Your task to perform on an android device: turn on showing notifications on the lock screen Image 0: 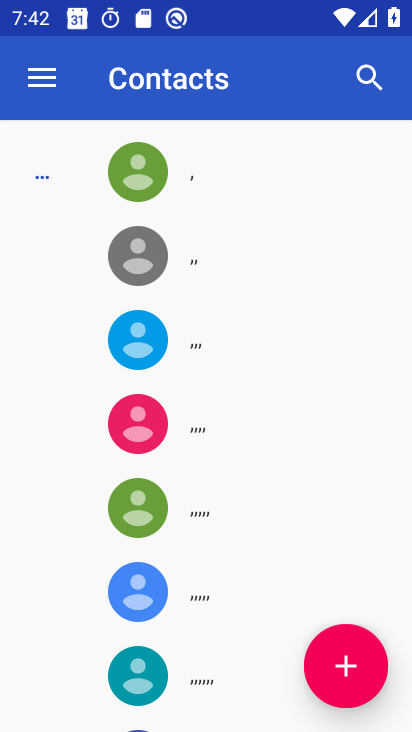
Step 0: press home button
Your task to perform on an android device: turn on showing notifications on the lock screen Image 1: 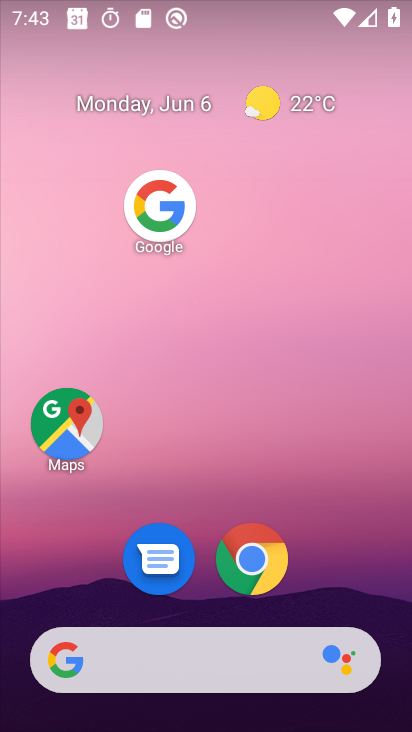
Step 1: drag from (199, 581) to (207, 298)
Your task to perform on an android device: turn on showing notifications on the lock screen Image 2: 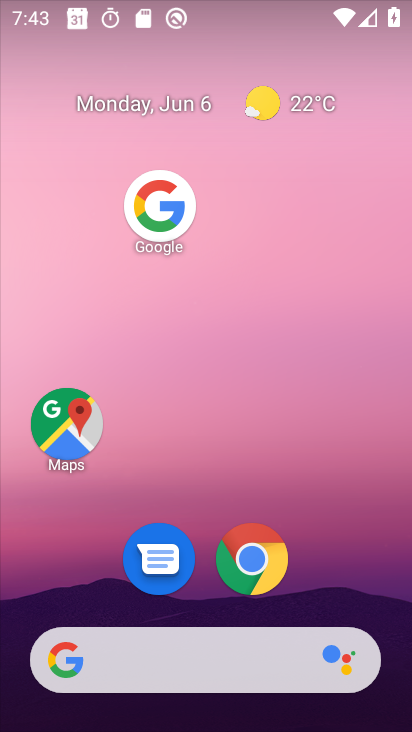
Step 2: drag from (198, 584) to (238, 122)
Your task to perform on an android device: turn on showing notifications on the lock screen Image 3: 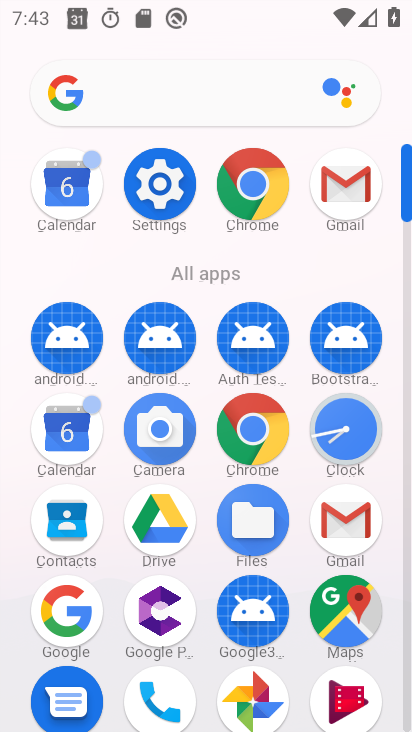
Step 3: click (160, 185)
Your task to perform on an android device: turn on showing notifications on the lock screen Image 4: 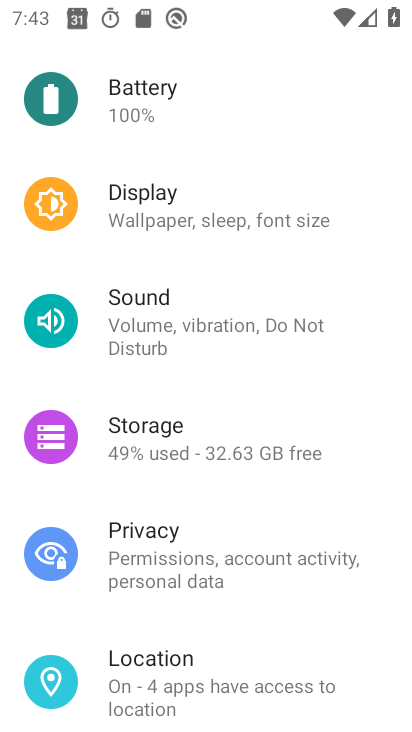
Step 4: drag from (221, 644) to (305, 214)
Your task to perform on an android device: turn on showing notifications on the lock screen Image 5: 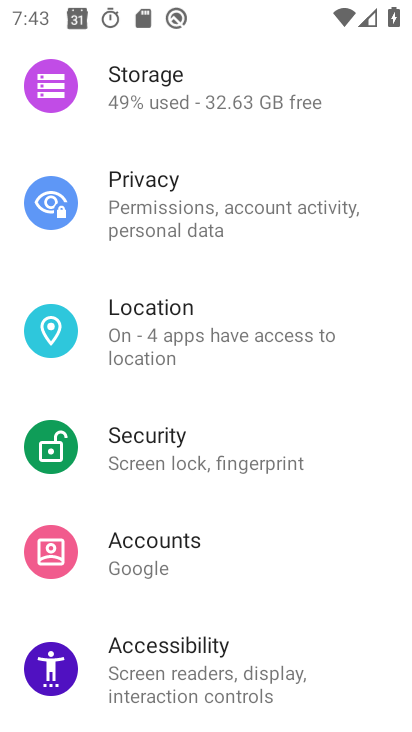
Step 5: drag from (179, 143) to (207, 694)
Your task to perform on an android device: turn on showing notifications on the lock screen Image 6: 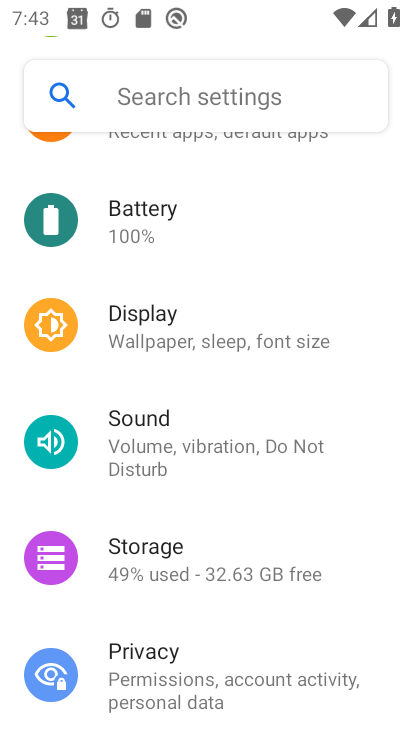
Step 6: drag from (196, 260) to (227, 684)
Your task to perform on an android device: turn on showing notifications on the lock screen Image 7: 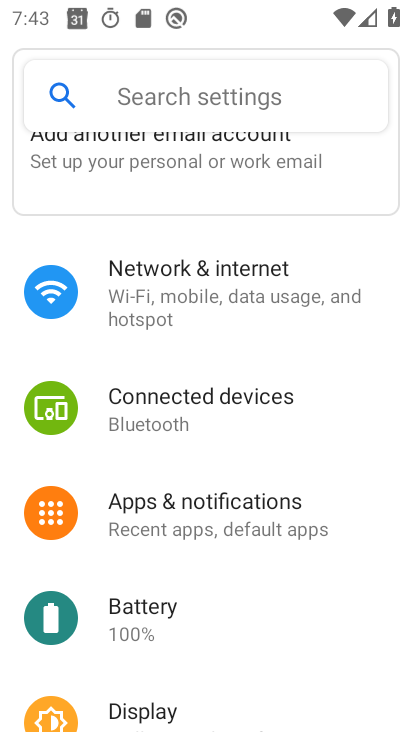
Step 7: click (197, 506)
Your task to perform on an android device: turn on showing notifications on the lock screen Image 8: 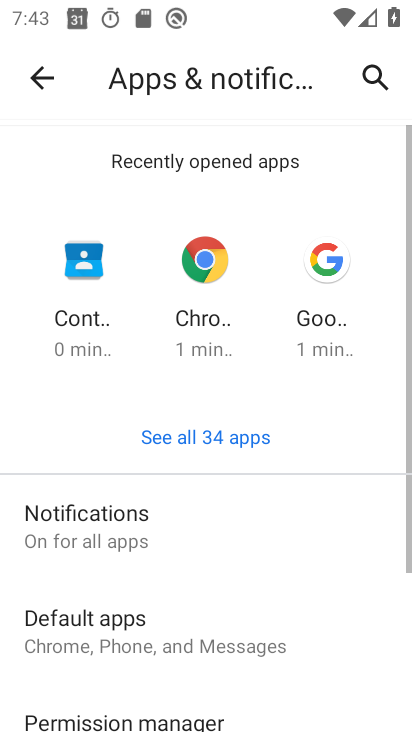
Step 8: click (109, 523)
Your task to perform on an android device: turn on showing notifications on the lock screen Image 9: 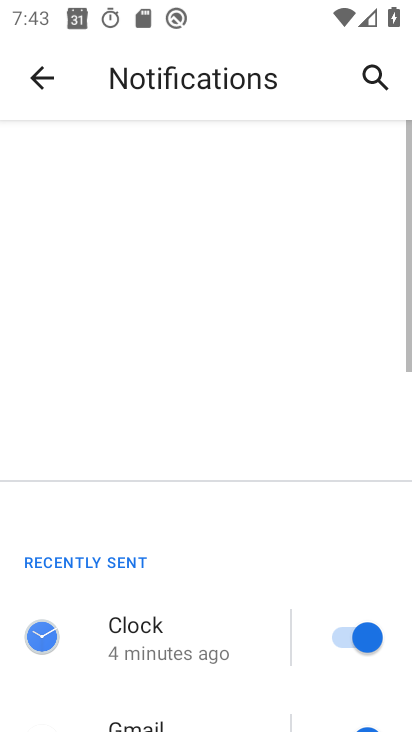
Step 9: drag from (203, 599) to (250, 191)
Your task to perform on an android device: turn on showing notifications on the lock screen Image 10: 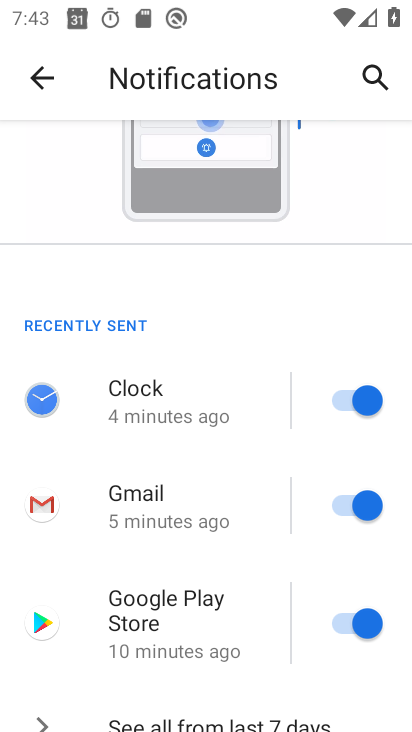
Step 10: drag from (211, 705) to (222, 330)
Your task to perform on an android device: turn on showing notifications on the lock screen Image 11: 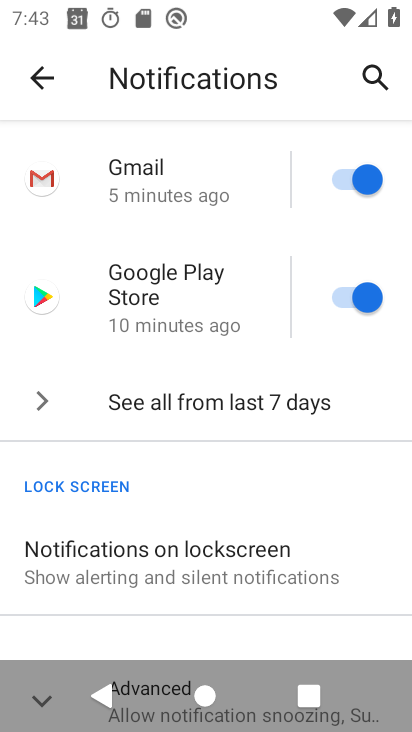
Step 11: click (207, 577)
Your task to perform on an android device: turn on showing notifications on the lock screen Image 12: 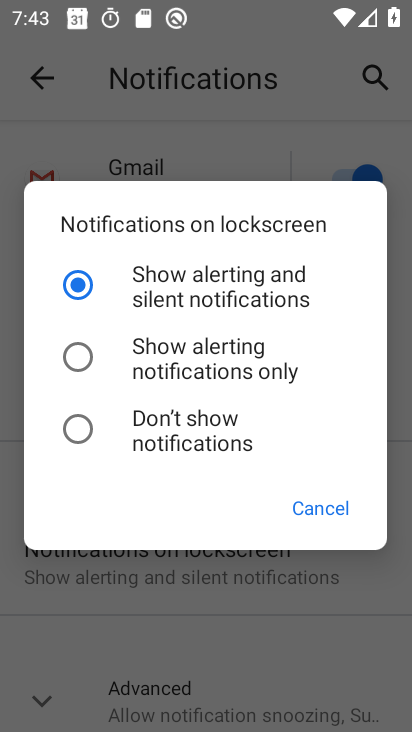
Step 12: task complete